Your task to perform on an android device: Go to Reddit.com Image 0: 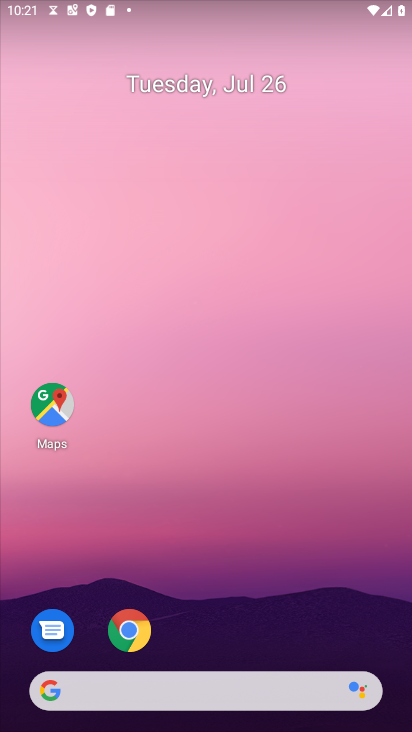
Step 0: click (124, 639)
Your task to perform on an android device: Go to Reddit.com Image 1: 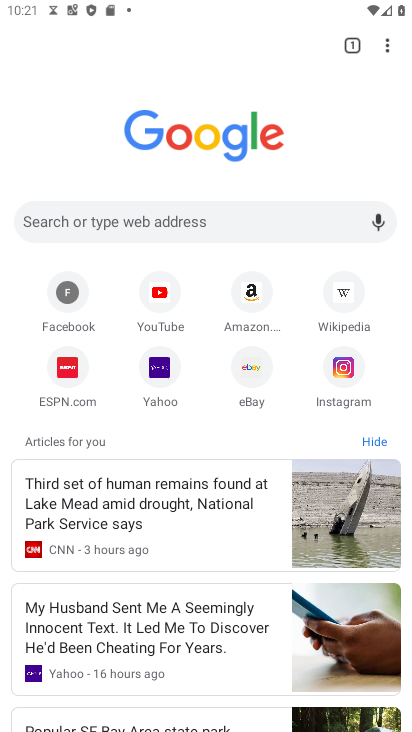
Step 1: click (88, 202)
Your task to perform on an android device: Go to Reddit.com Image 2: 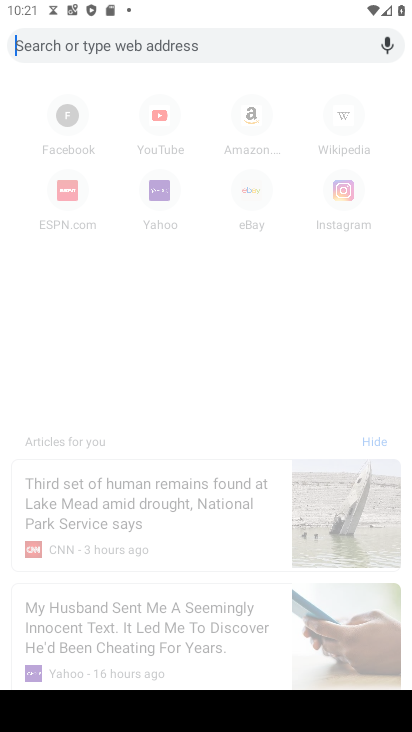
Step 2: type "www.reddit.com"
Your task to perform on an android device: Go to Reddit.com Image 3: 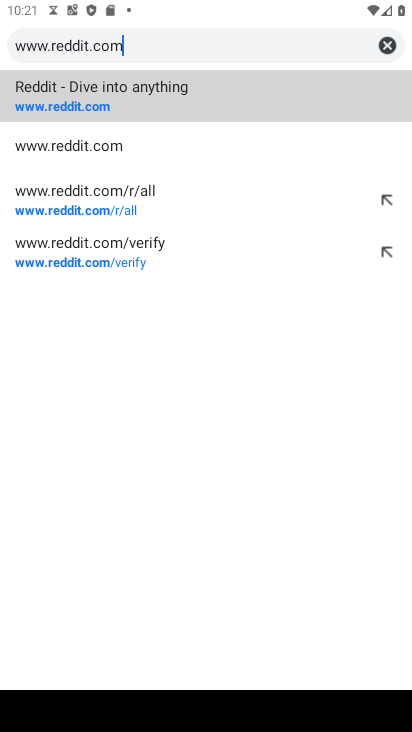
Step 3: click (80, 112)
Your task to perform on an android device: Go to Reddit.com Image 4: 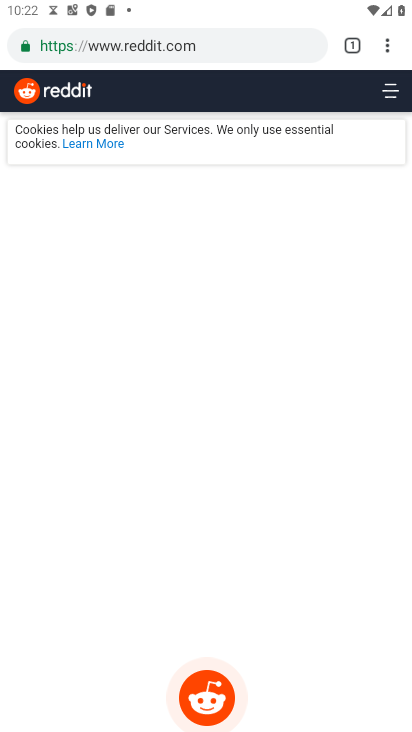
Step 4: task complete